Your task to perform on an android device: set an alarm Image 0: 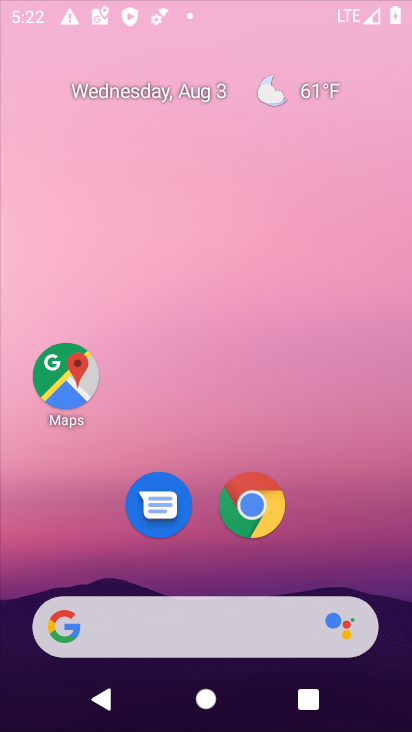
Step 0: drag from (345, 504) to (353, 57)
Your task to perform on an android device: set an alarm Image 1: 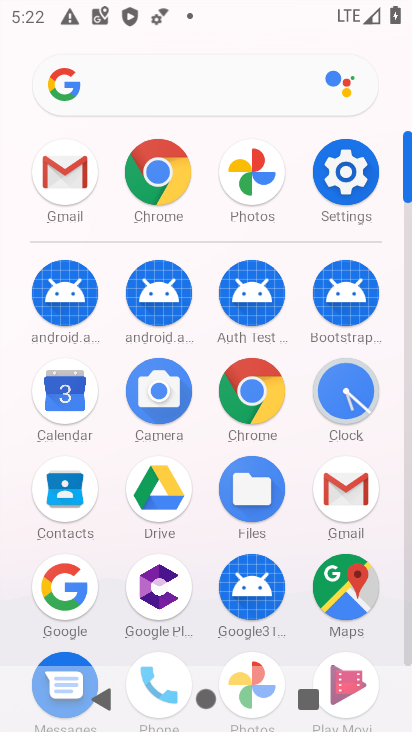
Step 1: press home button
Your task to perform on an android device: set an alarm Image 2: 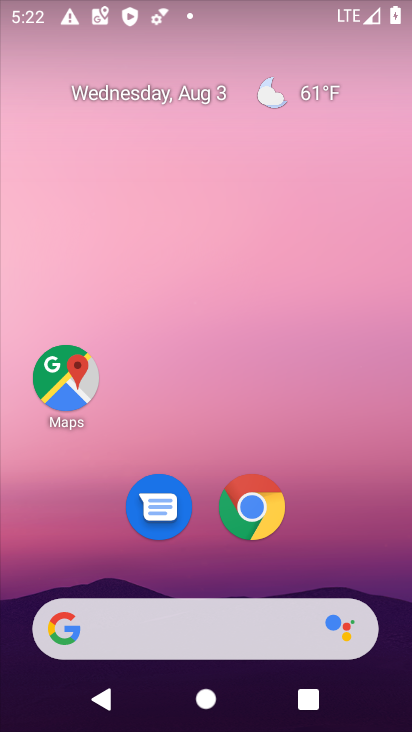
Step 2: click (324, 102)
Your task to perform on an android device: set an alarm Image 3: 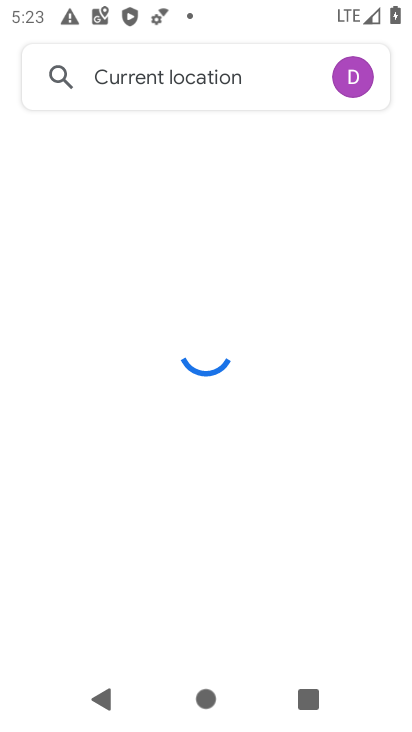
Step 3: press home button
Your task to perform on an android device: set an alarm Image 4: 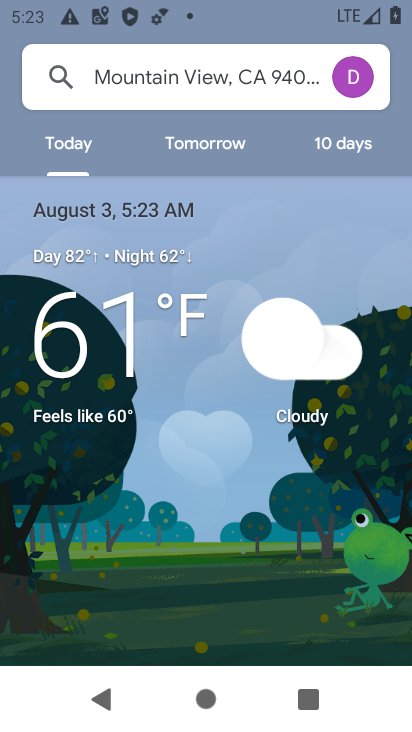
Step 4: press home button
Your task to perform on an android device: set an alarm Image 5: 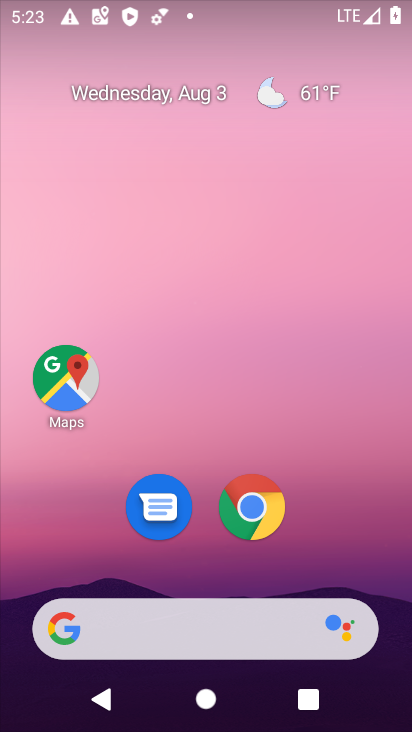
Step 5: drag from (351, 520) to (323, 69)
Your task to perform on an android device: set an alarm Image 6: 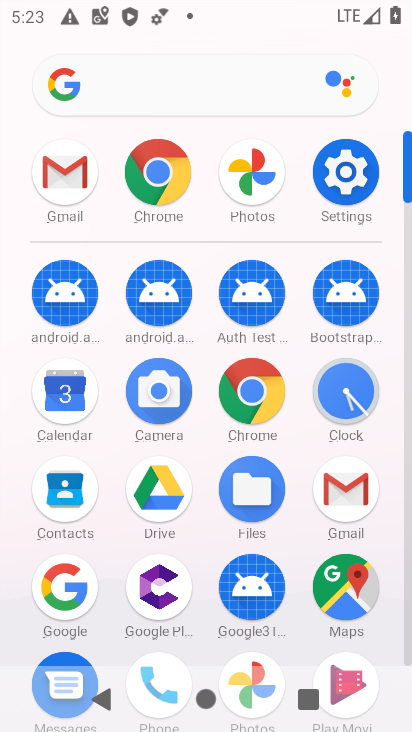
Step 6: click (346, 391)
Your task to perform on an android device: set an alarm Image 7: 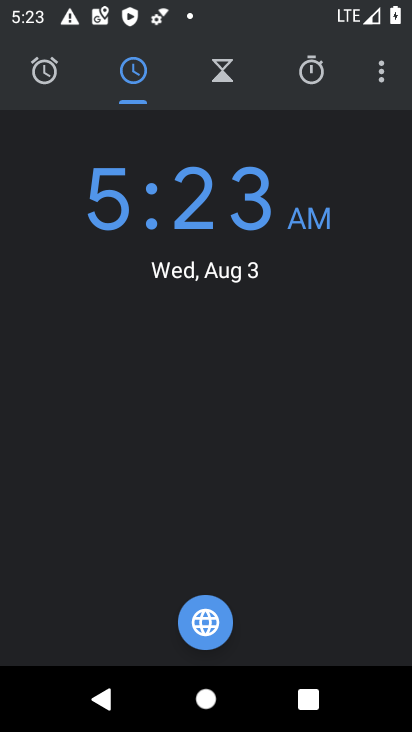
Step 7: click (48, 92)
Your task to perform on an android device: set an alarm Image 8: 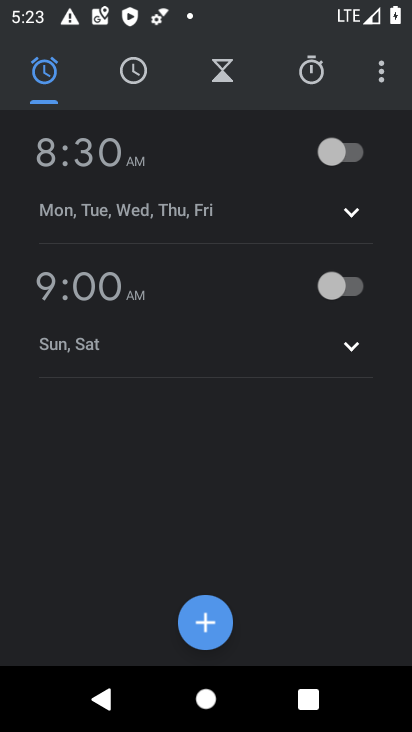
Step 8: click (208, 606)
Your task to perform on an android device: set an alarm Image 9: 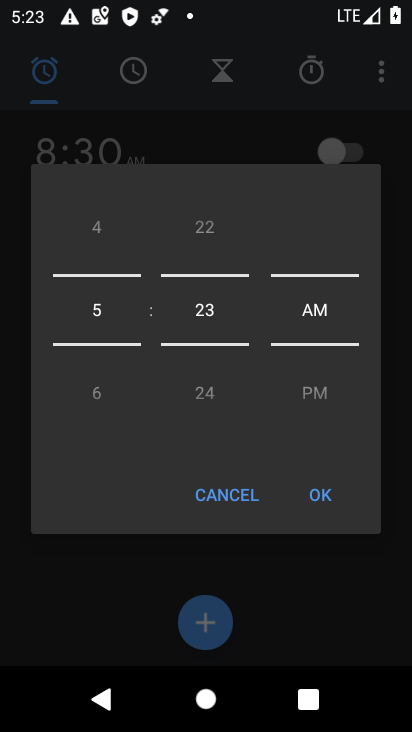
Step 9: click (319, 486)
Your task to perform on an android device: set an alarm Image 10: 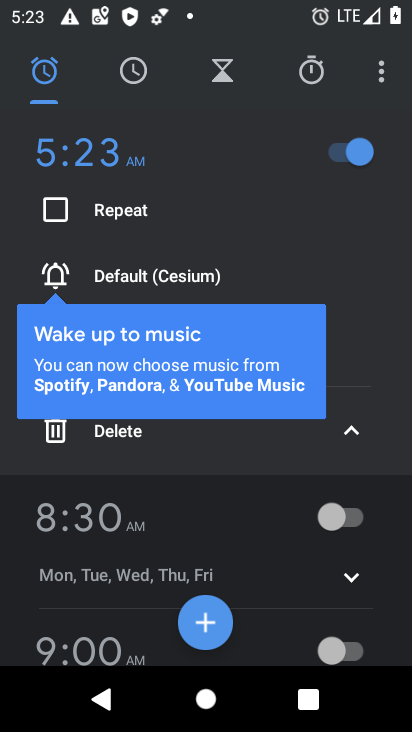
Step 10: task complete